Your task to perform on an android device: empty trash in the gmail app Image 0: 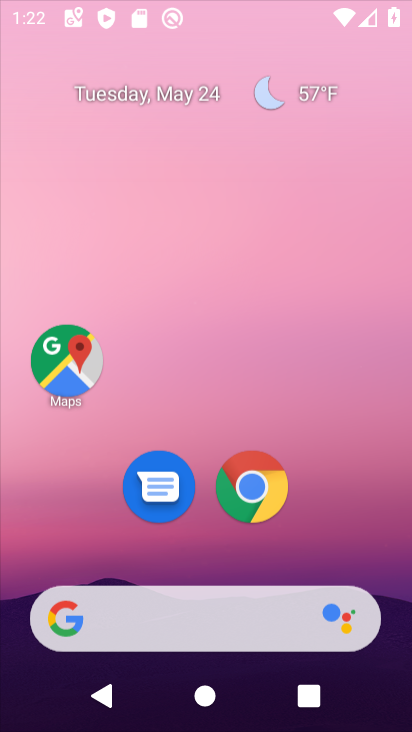
Step 0: click (231, 140)
Your task to perform on an android device: empty trash in the gmail app Image 1: 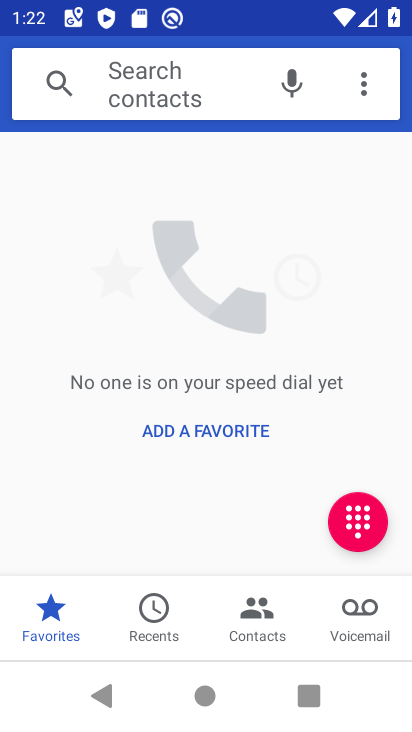
Step 1: press home button
Your task to perform on an android device: empty trash in the gmail app Image 2: 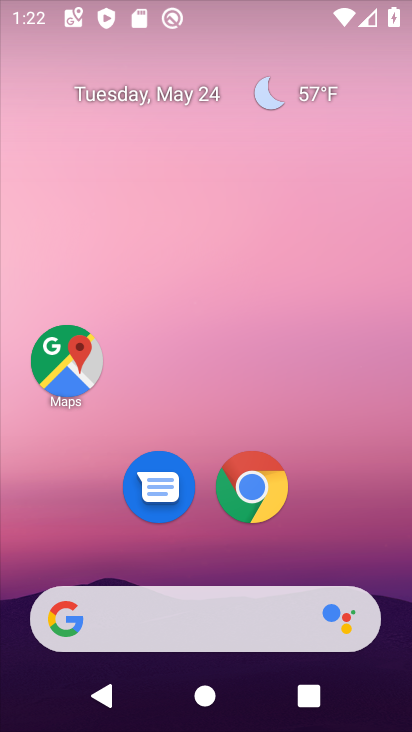
Step 2: drag from (246, 726) to (242, 263)
Your task to perform on an android device: empty trash in the gmail app Image 3: 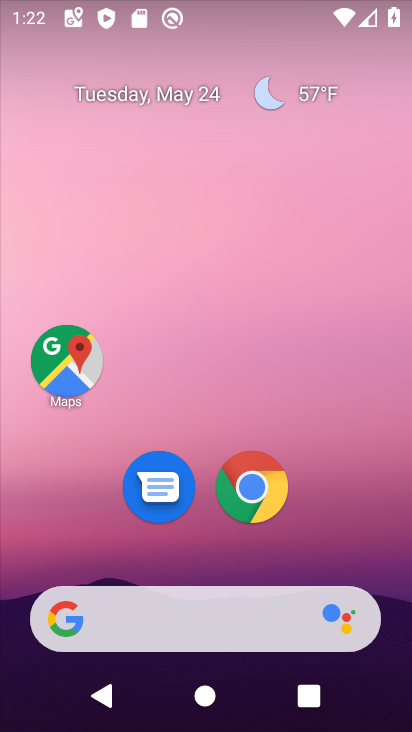
Step 3: drag from (239, 704) to (258, 134)
Your task to perform on an android device: empty trash in the gmail app Image 4: 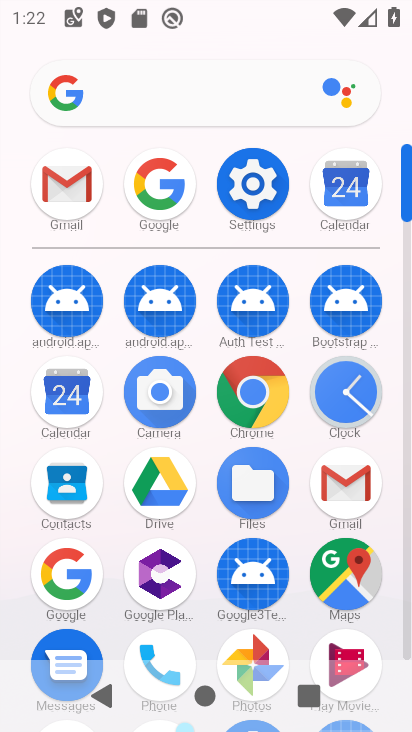
Step 4: click (342, 488)
Your task to perform on an android device: empty trash in the gmail app Image 5: 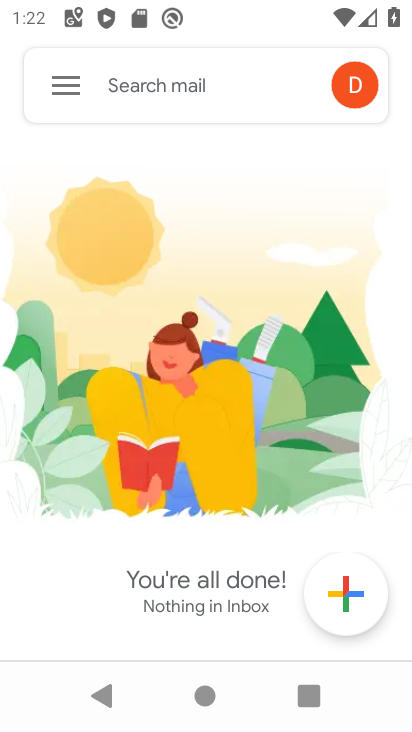
Step 5: click (59, 89)
Your task to perform on an android device: empty trash in the gmail app Image 6: 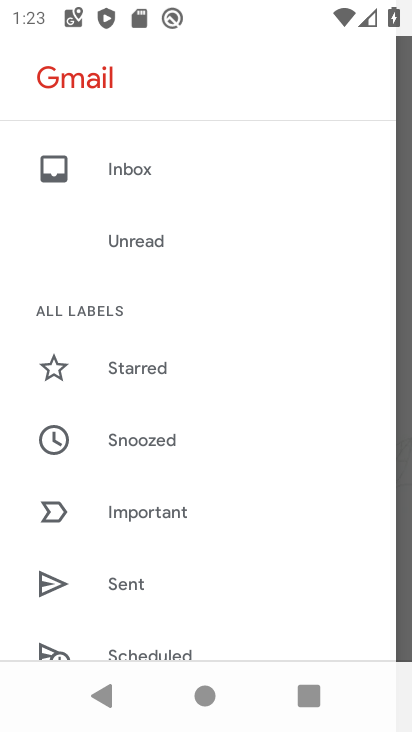
Step 6: drag from (166, 635) to (168, 222)
Your task to perform on an android device: empty trash in the gmail app Image 7: 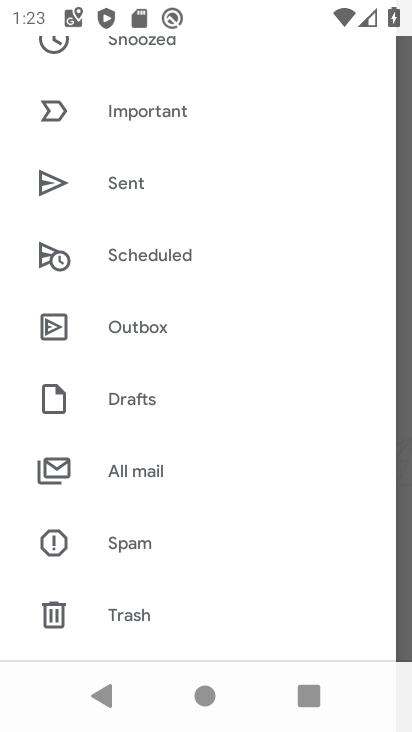
Step 7: click (128, 612)
Your task to perform on an android device: empty trash in the gmail app Image 8: 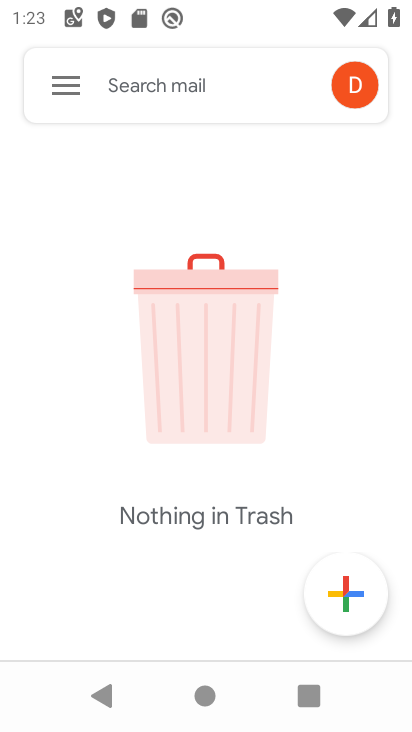
Step 8: task complete